Your task to perform on an android device: Search for sushi restaurants on Maps Image 0: 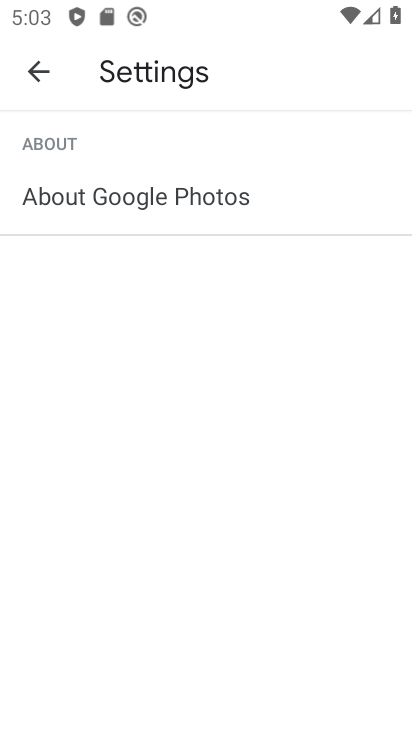
Step 0: press back button
Your task to perform on an android device: Search for sushi restaurants on Maps Image 1: 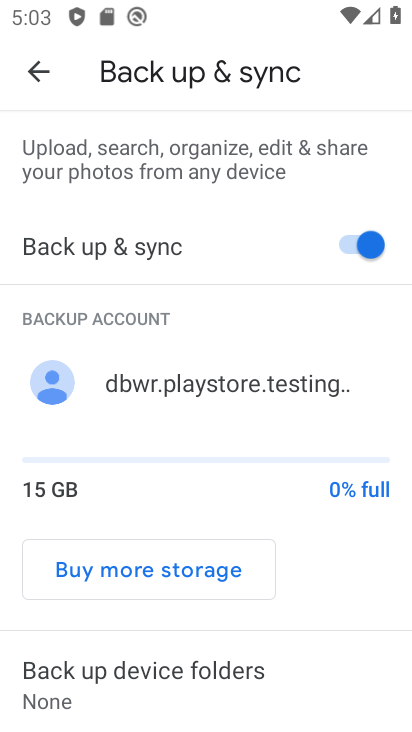
Step 1: press back button
Your task to perform on an android device: Search for sushi restaurants on Maps Image 2: 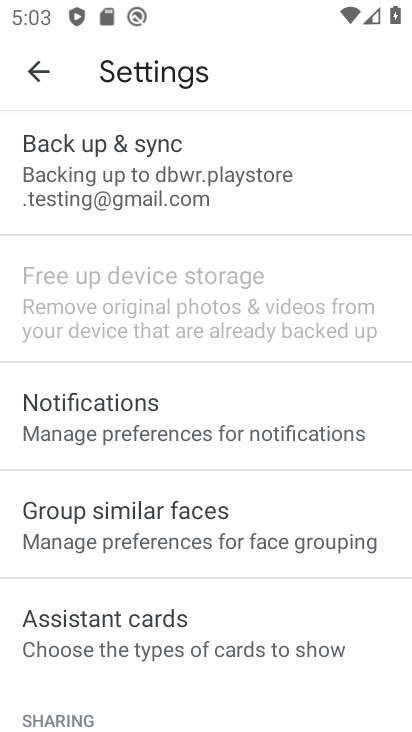
Step 2: click (27, 61)
Your task to perform on an android device: Search for sushi restaurants on Maps Image 3: 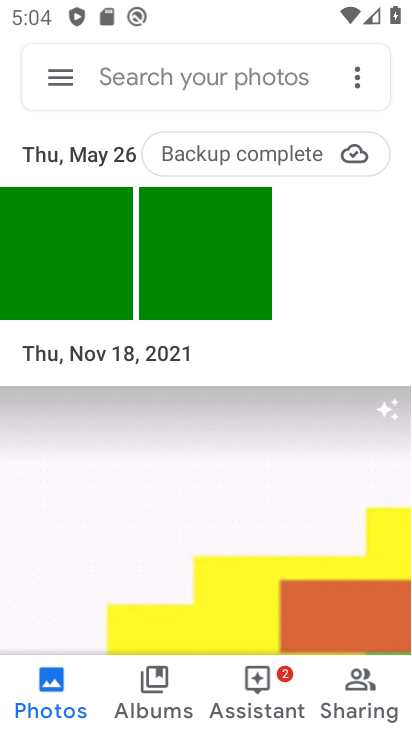
Step 3: press back button
Your task to perform on an android device: Search for sushi restaurants on Maps Image 4: 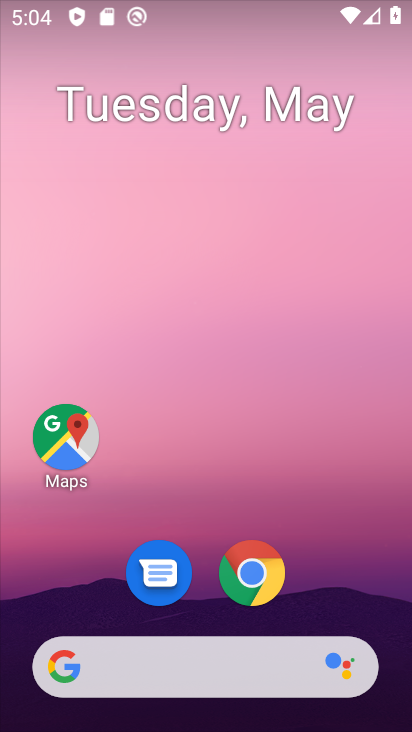
Step 4: click (50, 447)
Your task to perform on an android device: Search for sushi restaurants on Maps Image 5: 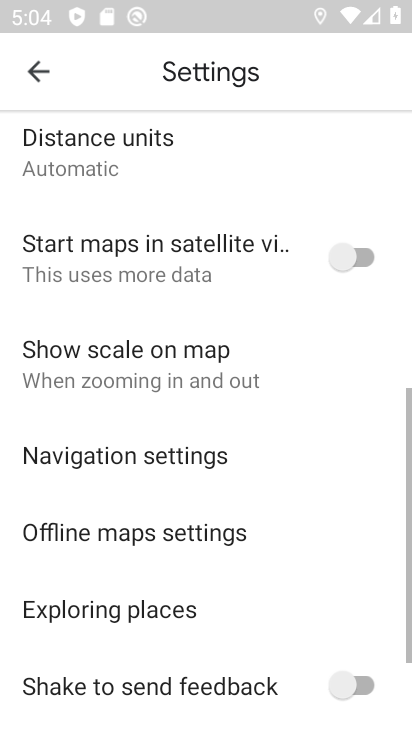
Step 5: click (24, 70)
Your task to perform on an android device: Search for sushi restaurants on Maps Image 6: 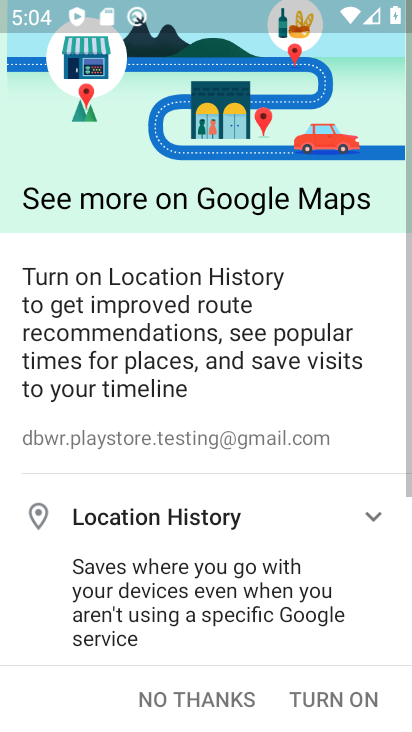
Step 6: click (210, 692)
Your task to perform on an android device: Search for sushi restaurants on Maps Image 7: 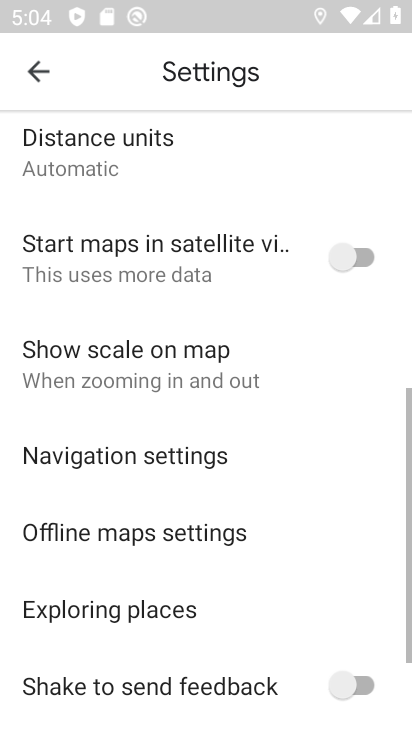
Step 7: click (35, 67)
Your task to perform on an android device: Search for sushi restaurants on Maps Image 8: 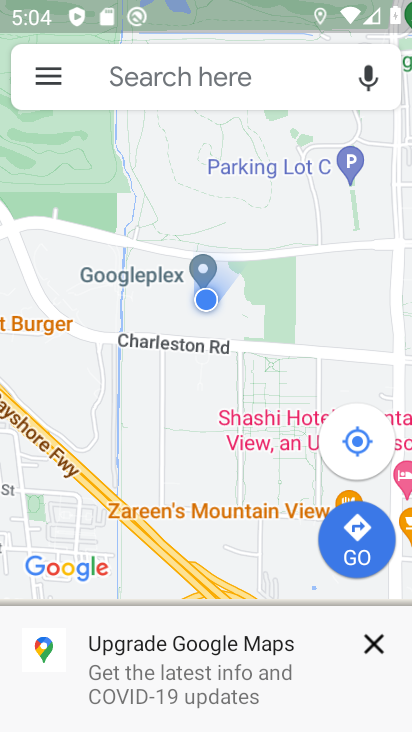
Step 8: click (214, 65)
Your task to perform on an android device: Search for sushi restaurants on Maps Image 9: 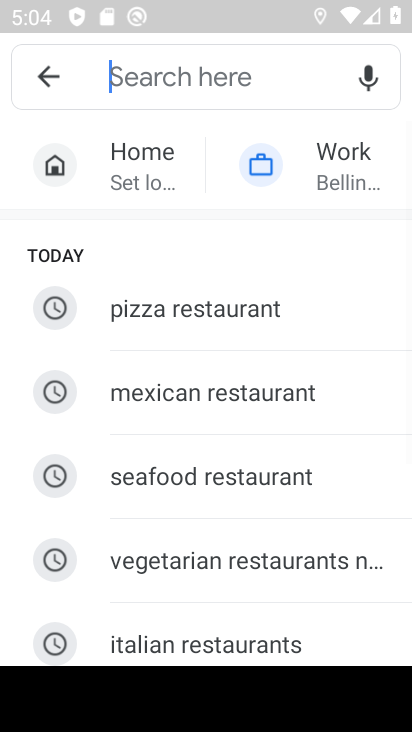
Step 9: drag from (202, 610) to (265, 188)
Your task to perform on an android device: Search for sushi restaurants on Maps Image 10: 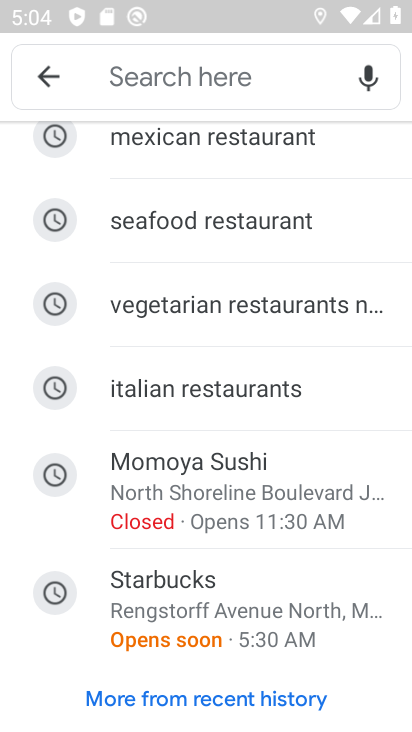
Step 10: drag from (244, 268) to (231, 703)
Your task to perform on an android device: Search for sushi restaurants on Maps Image 11: 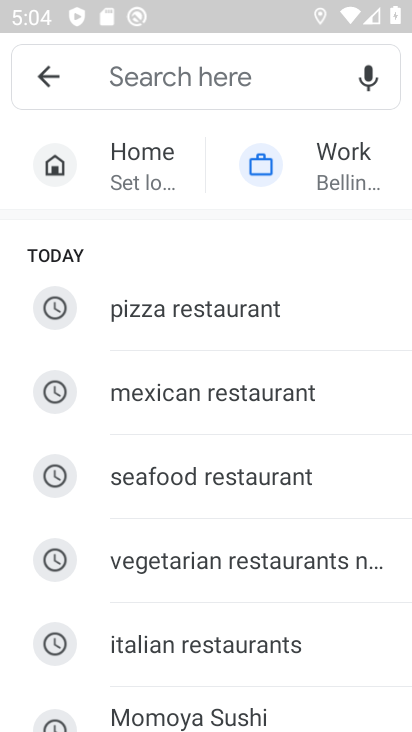
Step 11: click (151, 71)
Your task to perform on an android device: Search for sushi restaurants on Maps Image 12: 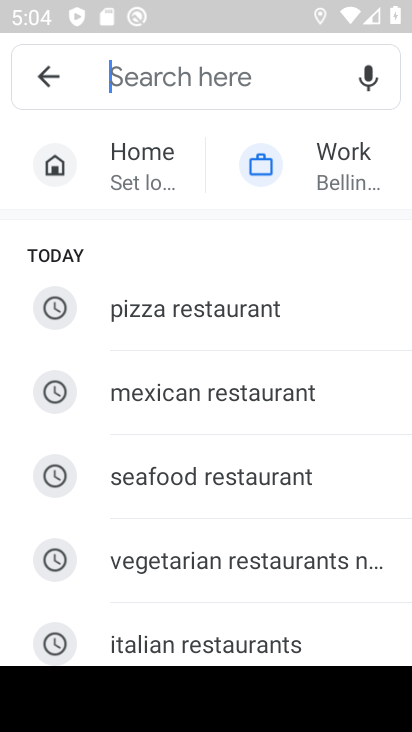
Step 12: type "sushi resturants"
Your task to perform on an android device: Search for sushi restaurants on Maps Image 13: 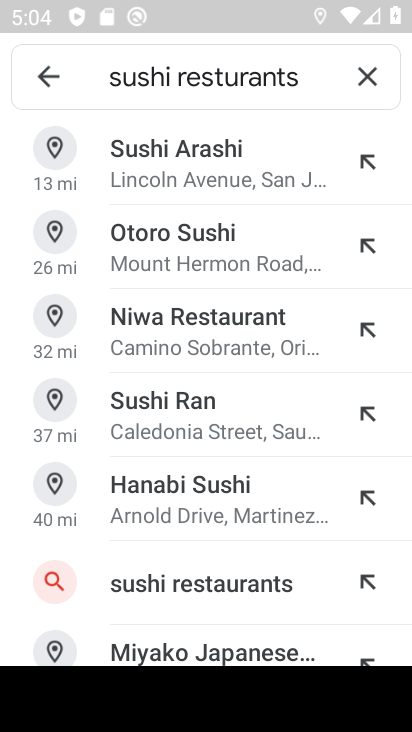
Step 13: click (193, 582)
Your task to perform on an android device: Search for sushi restaurants on Maps Image 14: 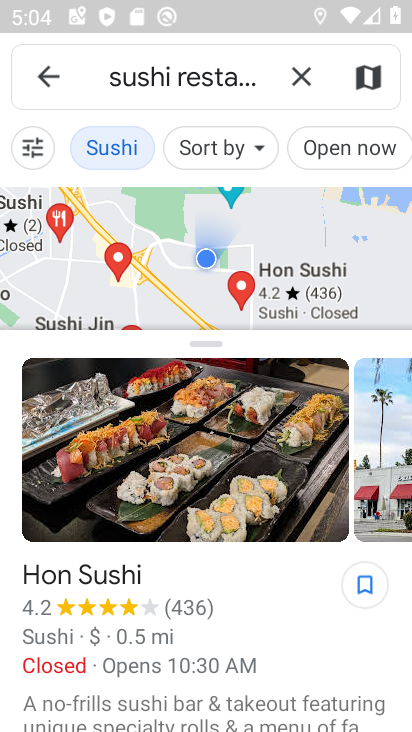
Step 14: task complete